Your task to perform on an android device: read, delete, or share a saved page in the chrome app Image 0: 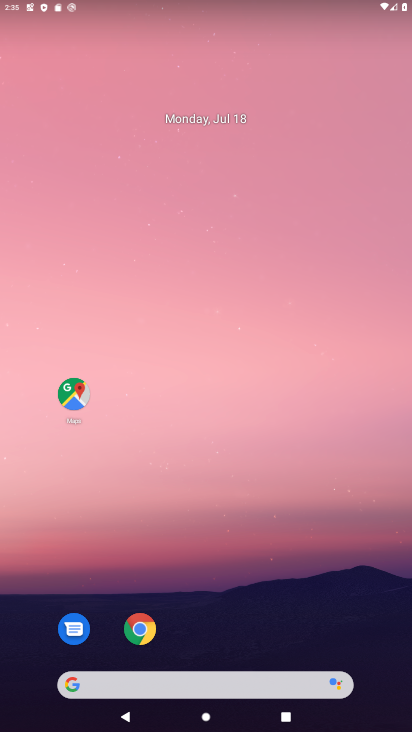
Step 0: click (137, 632)
Your task to perform on an android device: read, delete, or share a saved page in the chrome app Image 1: 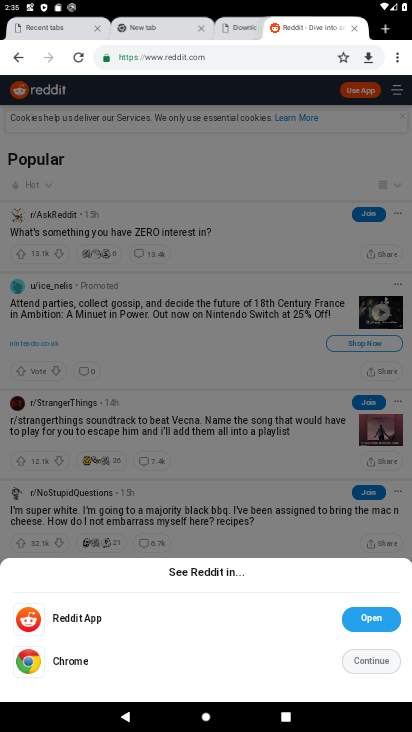
Step 1: click (398, 61)
Your task to perform on an android device: read, delete, or share a saved page in the chrome app Image 2: 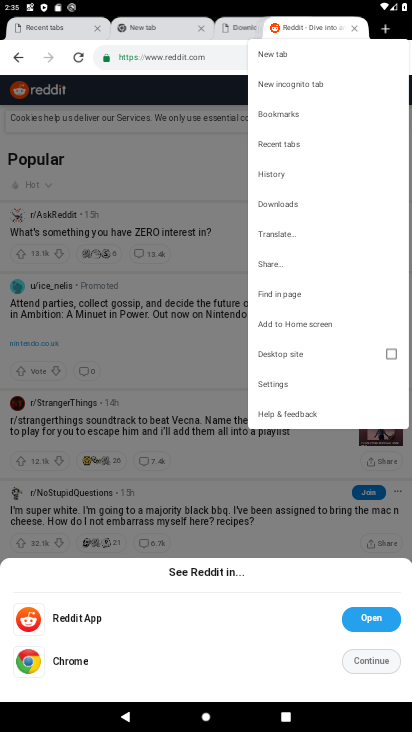
Step 2: click (307, 207)
Your task to perform on an android device: read, delete, or share a saved page in the chrome app Image 3: 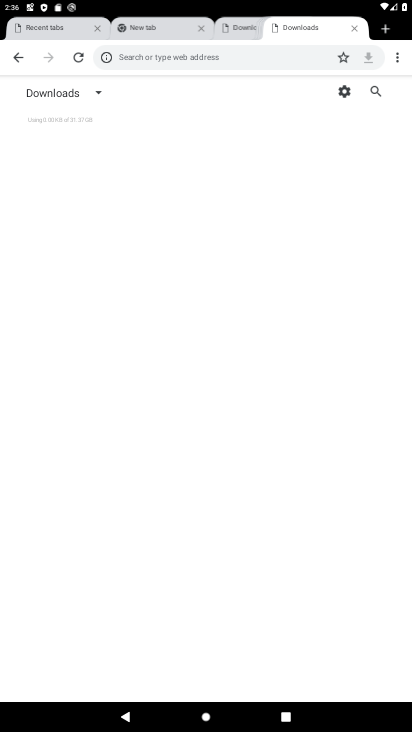
Step 3: click (87, 95)
Your task to perform on an android device: read, delete, or share a saved page in the chrome app Image 4: 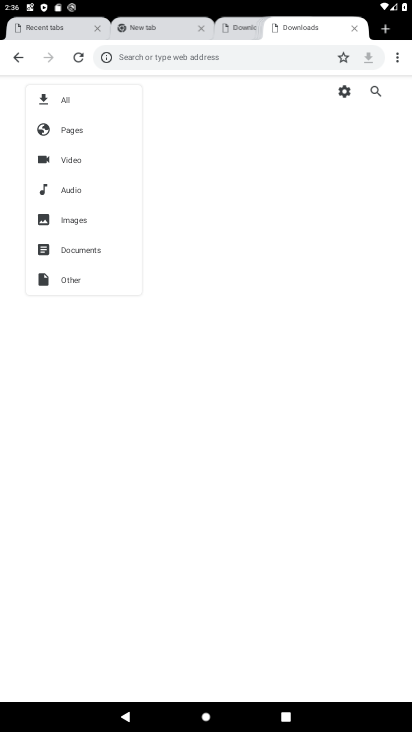
Step 4: click (95, 136)
Your task to perform on an android device: read, delete, or share a saved page in the chrome app Image 5: 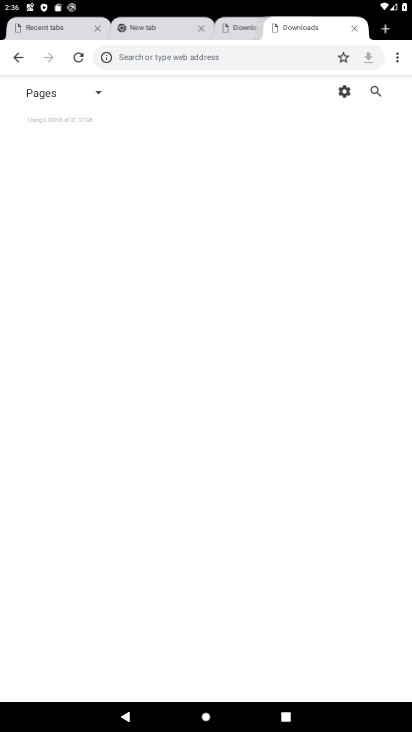
Step 5: click (58, 92)
Your task to perform on an android device: read, delete, or share a saved page in the chrome app Image 6: 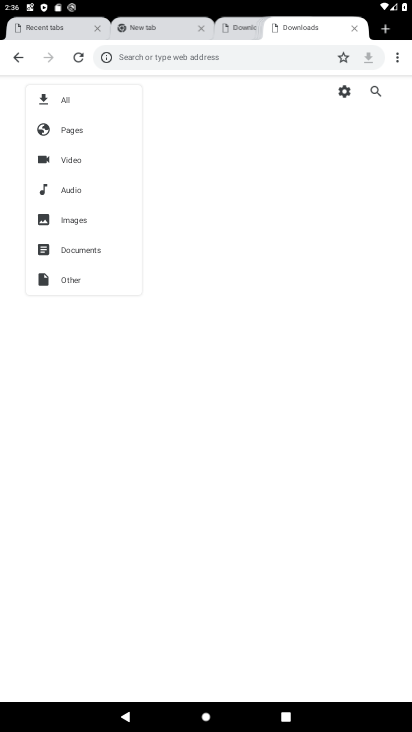
Step 6: task complete